Your task to perform on an android device: What's on my calendar today? Image 0: 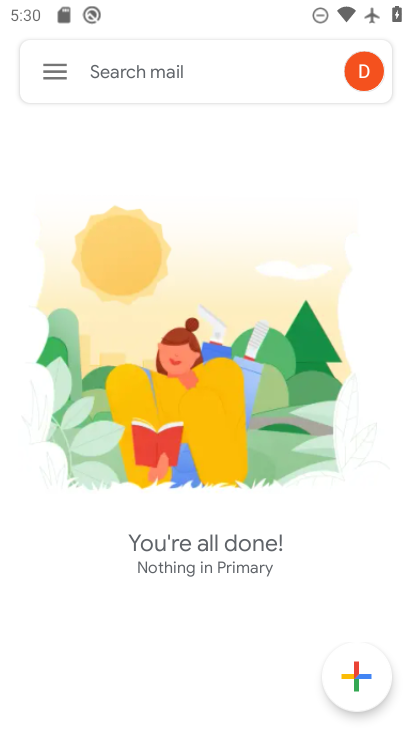
Step 0: press back button
Your task to perform on an android device: What's on my calendar today? Image 1: 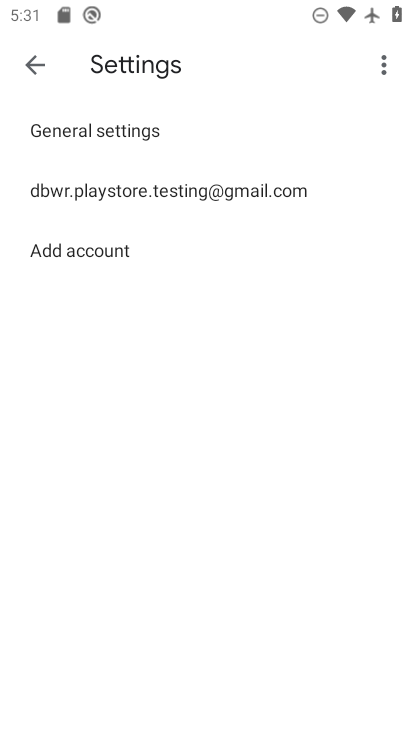
Step 1: press home button
Your task to perform on an android device: What's on my calendar today? Image 2: 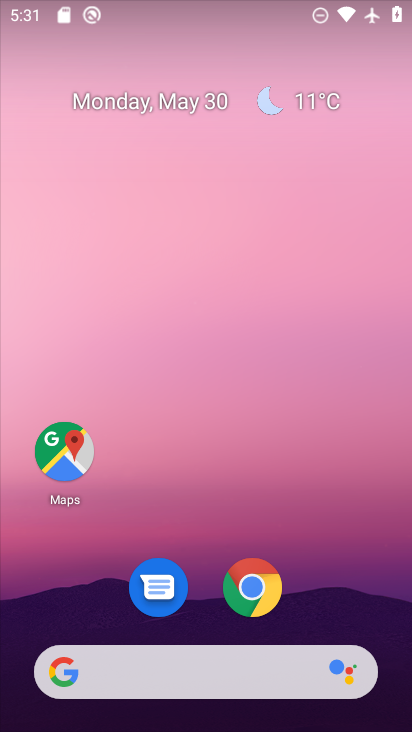
Step 2: drag from (342, 614) to (257, 25)
Your task to perform on an android device: What's on my calendar today? Image 3: 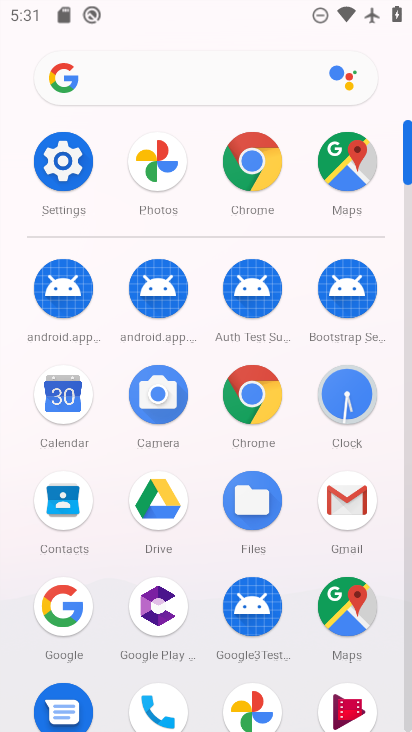
Step 3: click (60, 393)
Your task to perform on an android device: What's on my calendar today? Image 4: 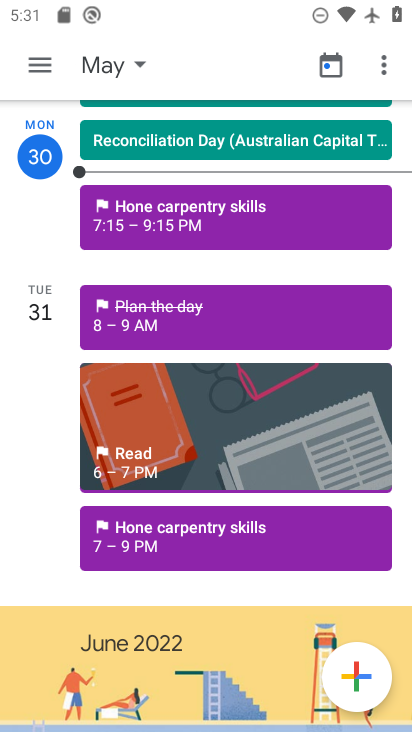
Step 4: click (34, 74)
Your task to perform on an android device: What's on my calendar today? Image 5: 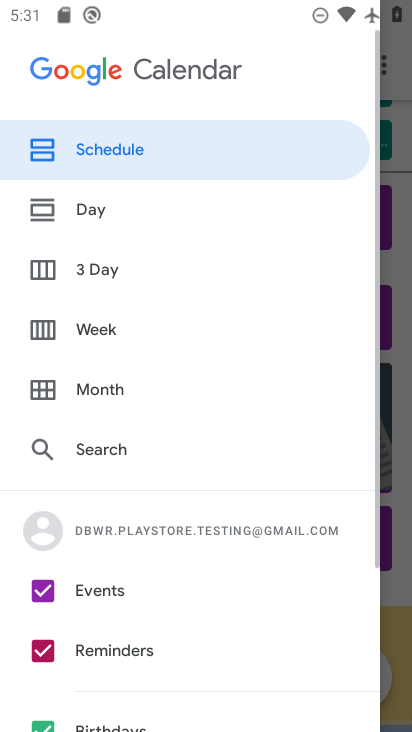
Step 5: click (158, 155)
Your task to perform on an android device: What's on my calendar today? Image 6: 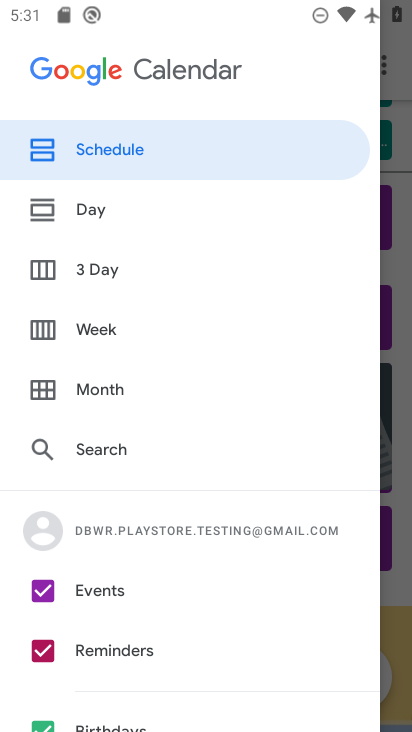
Step 6: click (158, 155)
Your task to perform on an android device: What's on my calendar today? Image 7: 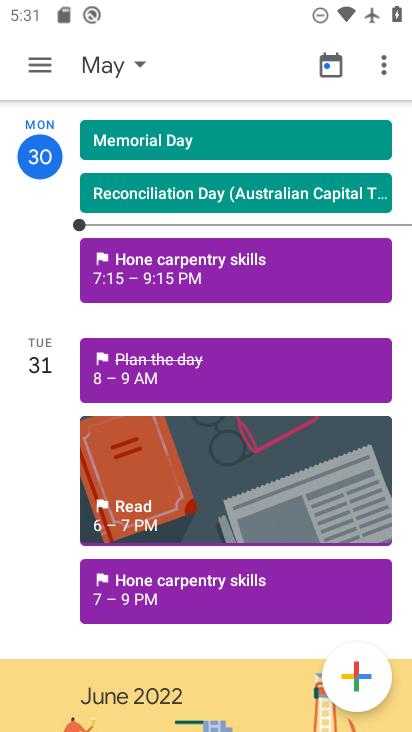
Step 7: task complete